Your task to perform on an android device: Open Wikipedia Image 0: 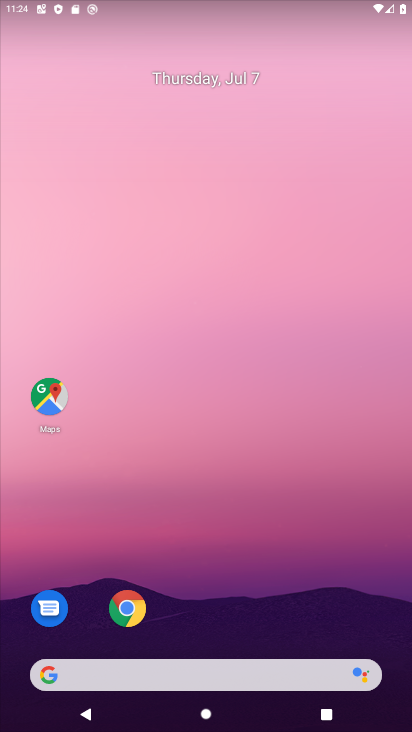
Step 0: click (117, 602)
Your task to perform on an android device: Open Wikipedia Image 1: 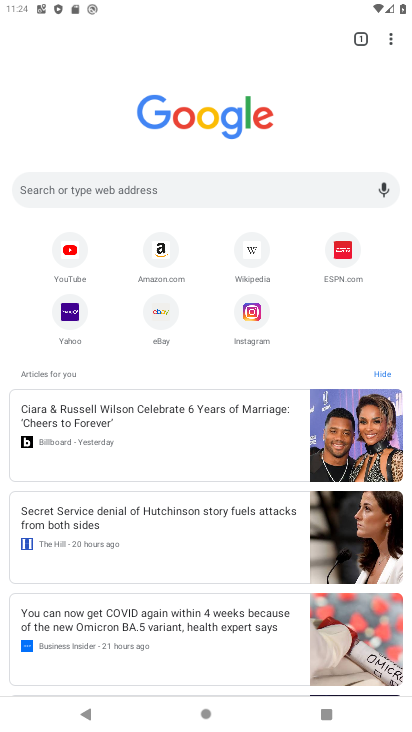
Step 1: click (238, 253)
Your task to perform on an android device: Open Wikipedia Image 2: 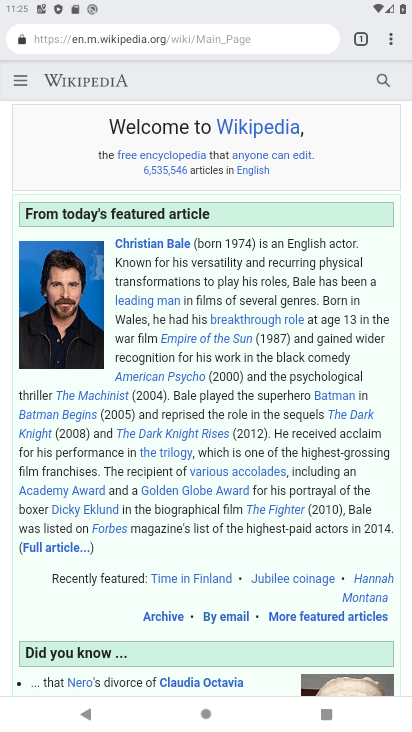
Step 2: task complete